Your task to perform on an android device: Open Youtube and go to the subscriptions tab Image 0: 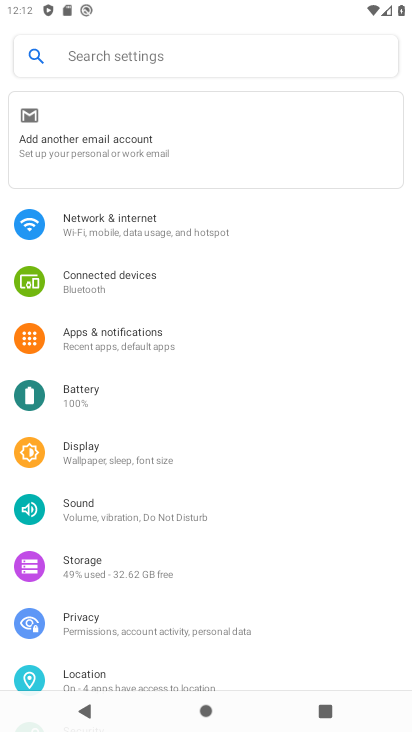
Step 0: press home button
Your task to perform on an android device: Open Youtube and go to the subscriptions tab Image 1: 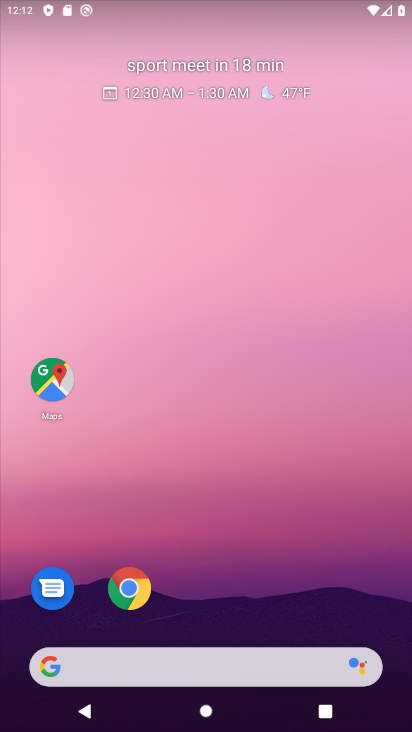
Step 1: drag from (298, 520) to (331, 50)
Your task to perform on an android device: Open Youtube and go to the subscriptions tab Image 2: 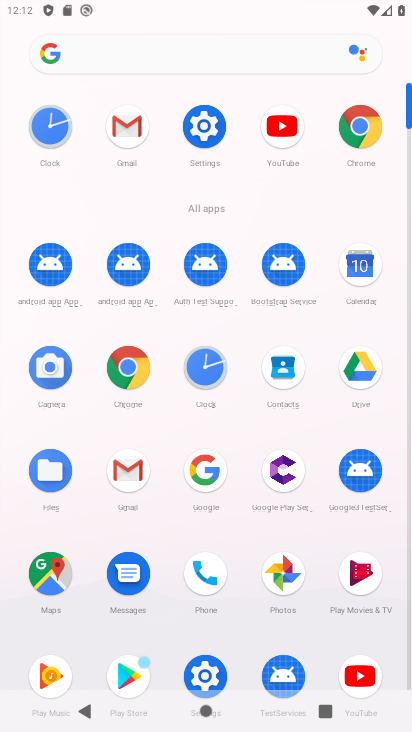
Step 2: click (361, 661)
Your task to perform on an android device: Open Youtube and go to the subscriptions tab Image 3: 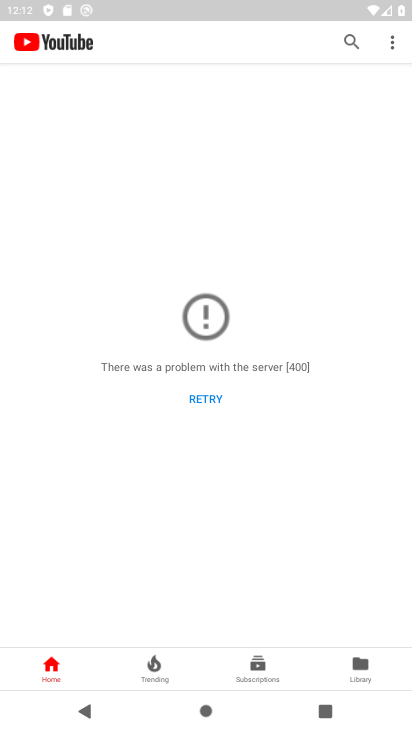
Step 3: click (266, 673)
Your task to perform on an android device: Open Youtube and go to the subscriptions tab Image 4: 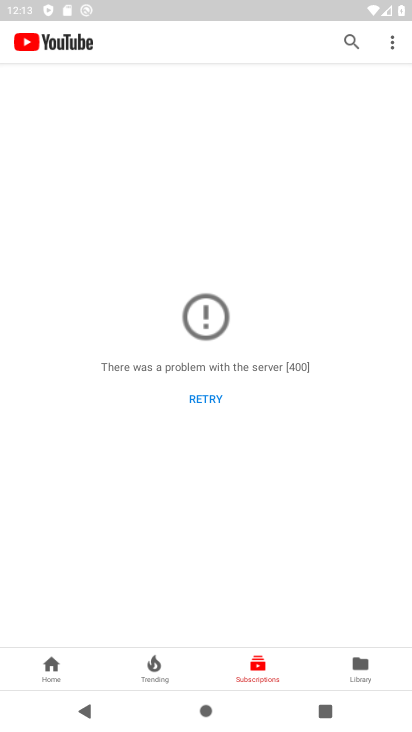
Step 4: task complete